Your task to perform on an android device: Is it going to rain this weekend? Image 0: 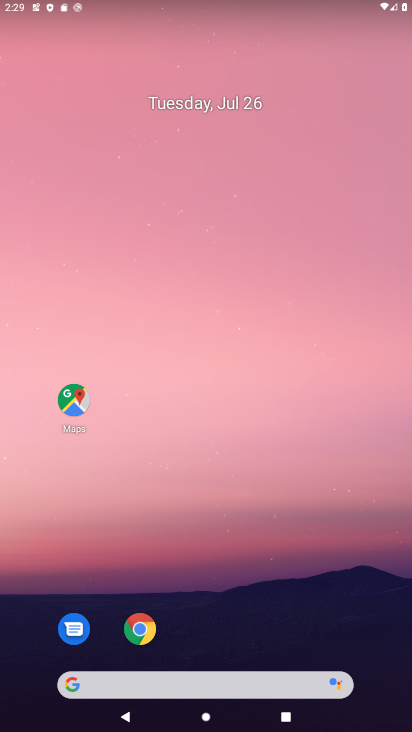
Step 0: drag from (225, 640) to (227, 211)
Your task to perform on an android device: Is it going to rain this weekend? Image 1: 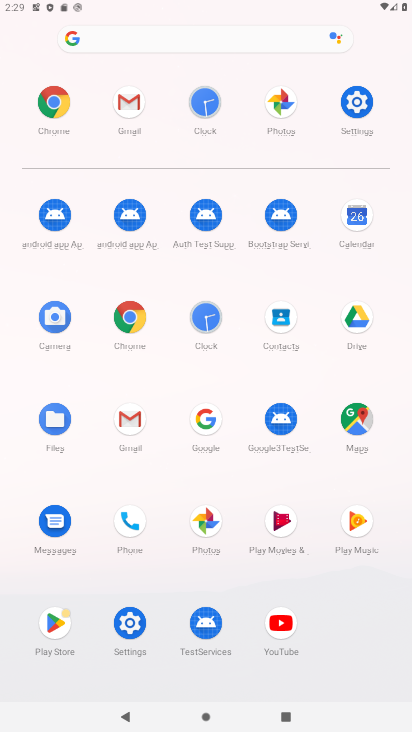
Step 1: click (204, 421)
Your task to perform on an android device: Is it going to rain this weekend? Image 2: 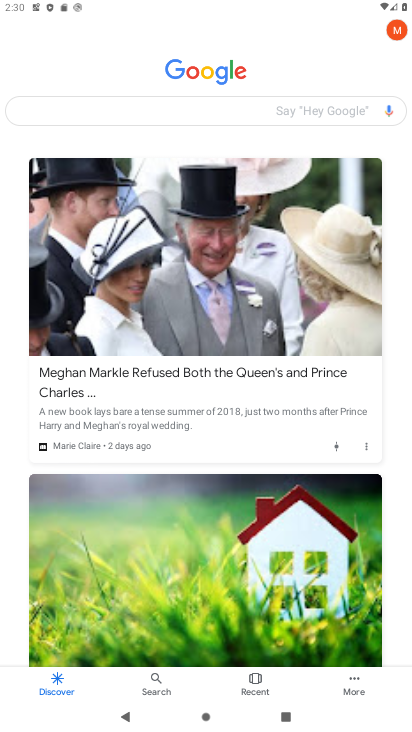
Step 2: click (193, 119)
Your task to perform on an android device: Is it going to rain this weekend? Image 3: 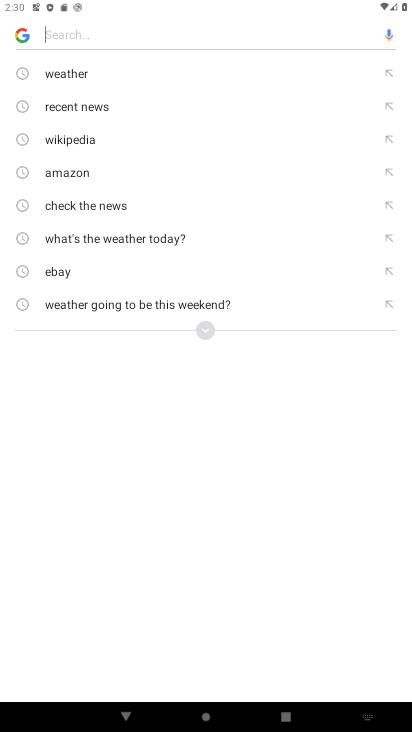
Step 3: click (148, 78)
Your task to perform on an android device: Is it going to rain this weekend? Image 4: 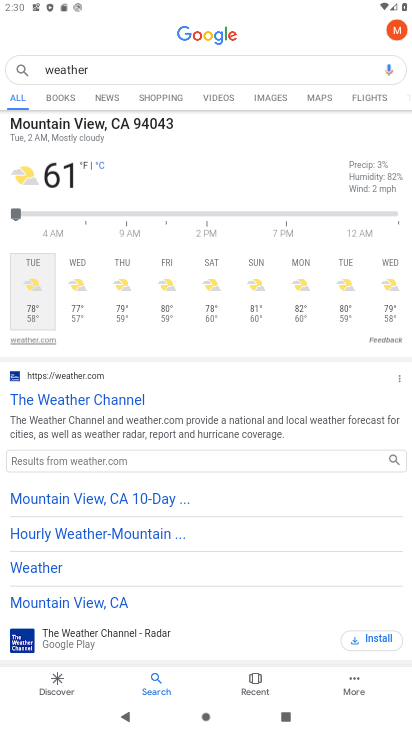
Step 4: task complete